Your task to perform on an android device: Search for the best rated headphones on amazon.com Image 0: 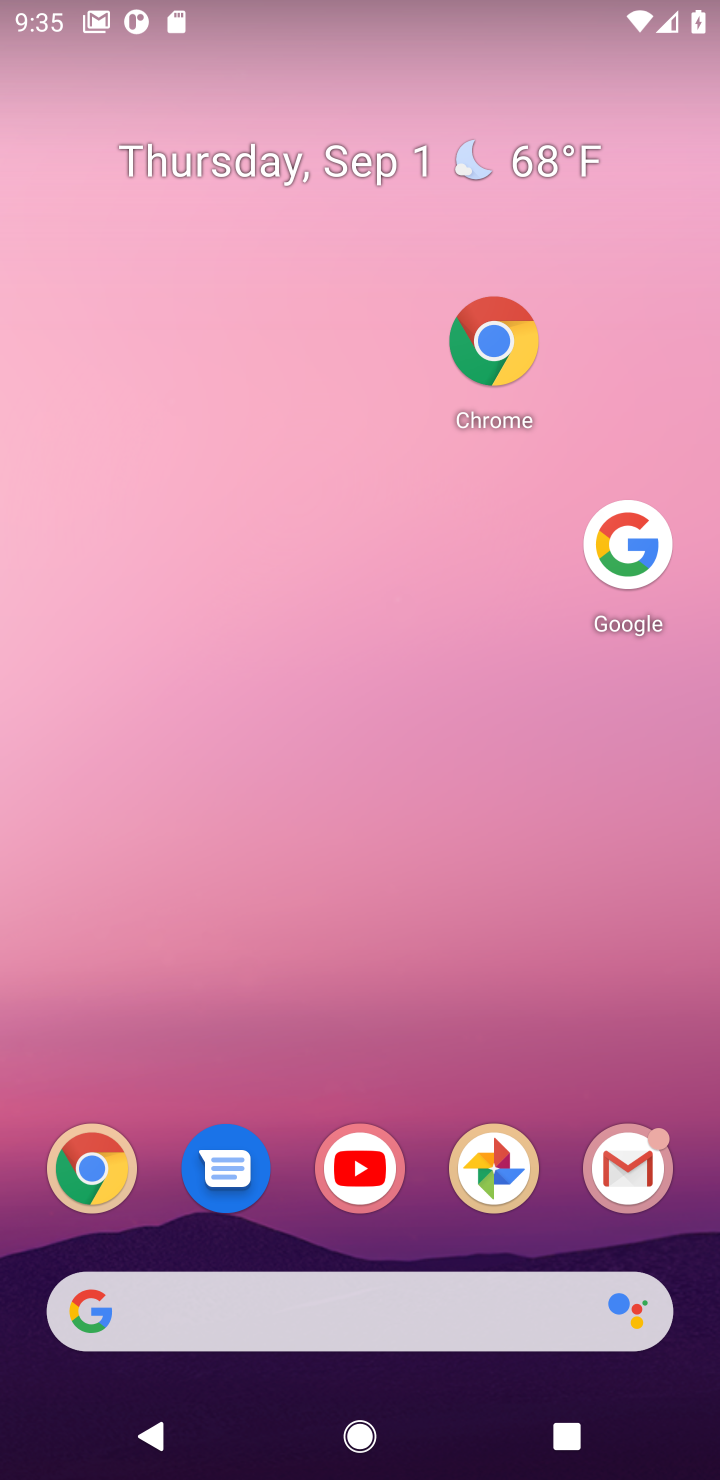
Step 0: drag from (256, 1275) to (266, 345)
Your task to perform on an android device: Search for the best rated headphones on amazon.com Image 1: 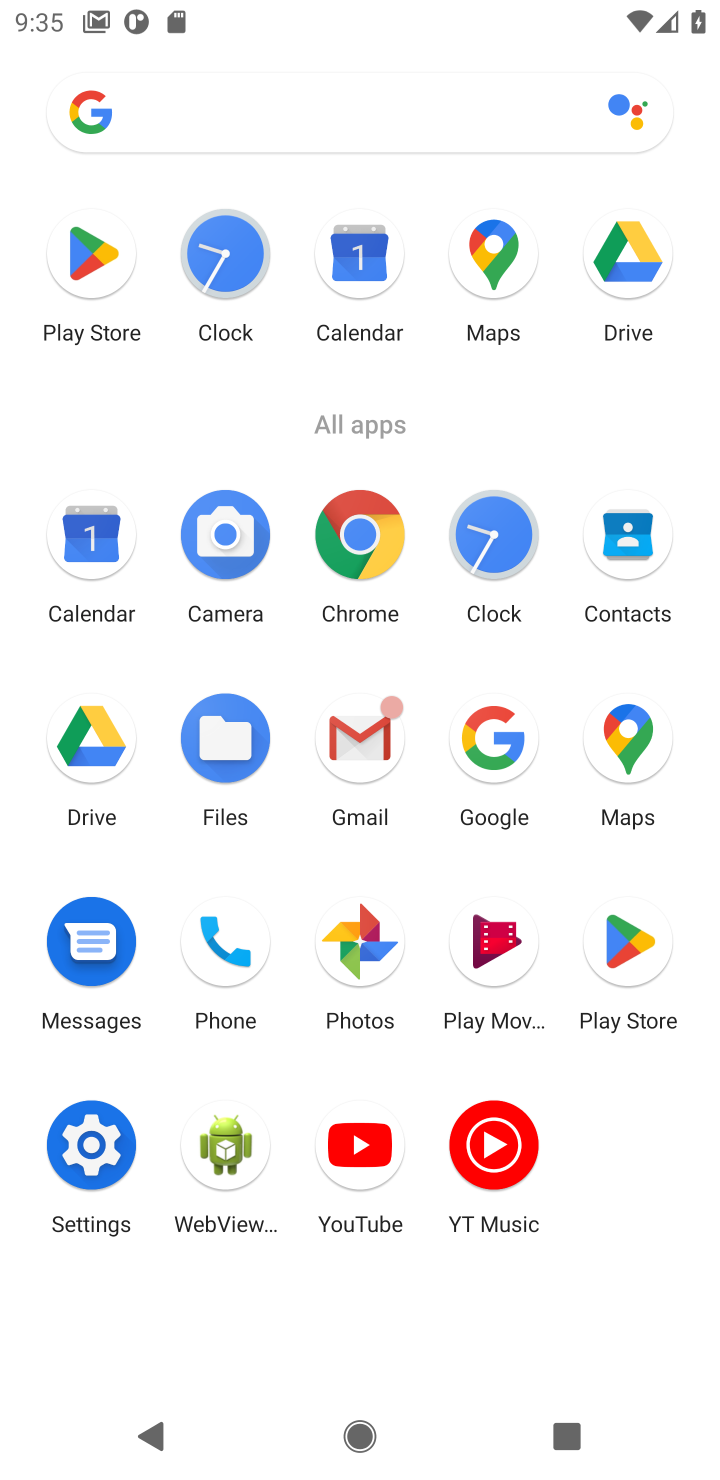
Step 1: click (491, 719)
Your task to perform on an android device: Search for the best rated headphones on amazon.com Image 2: 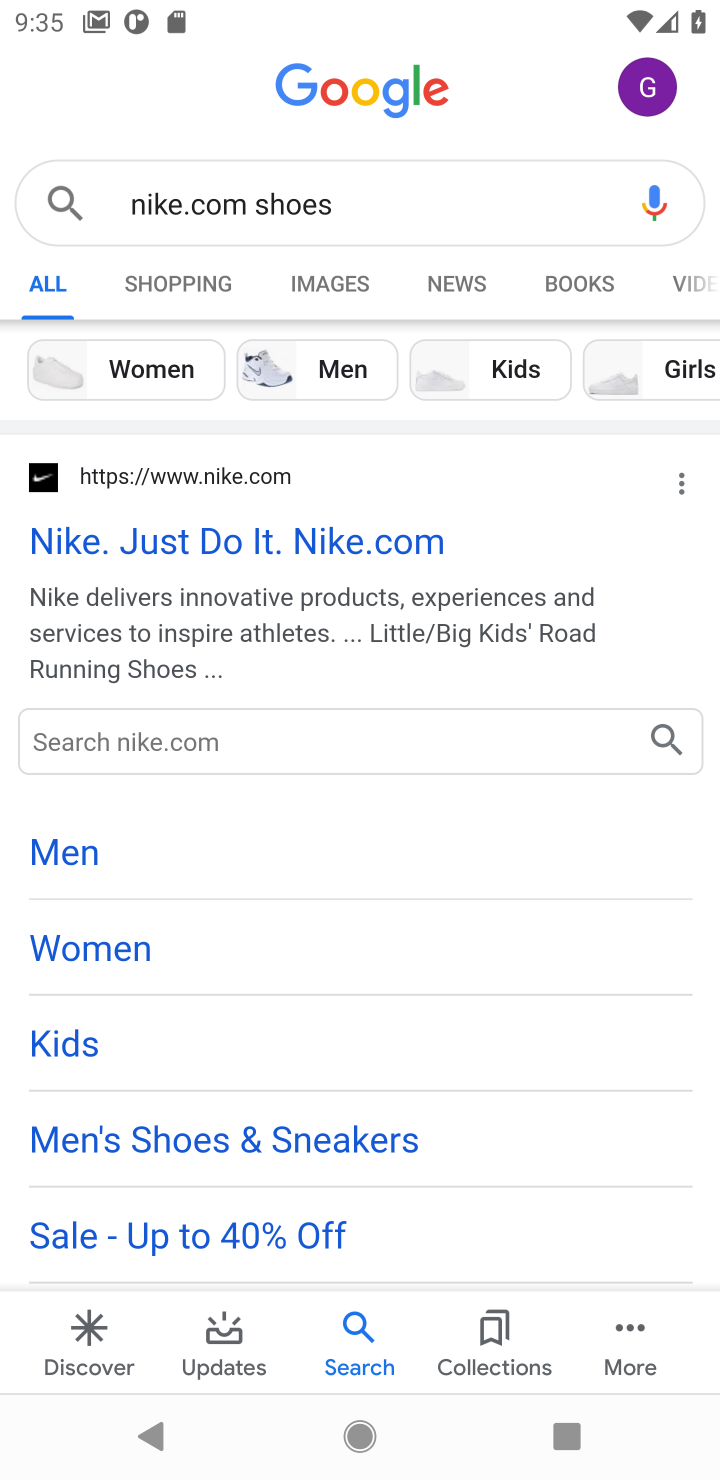
Step 2: click (463, 187)
Your task to perform on an android device: Search for the best rated headphones on amazon.com Image 3: 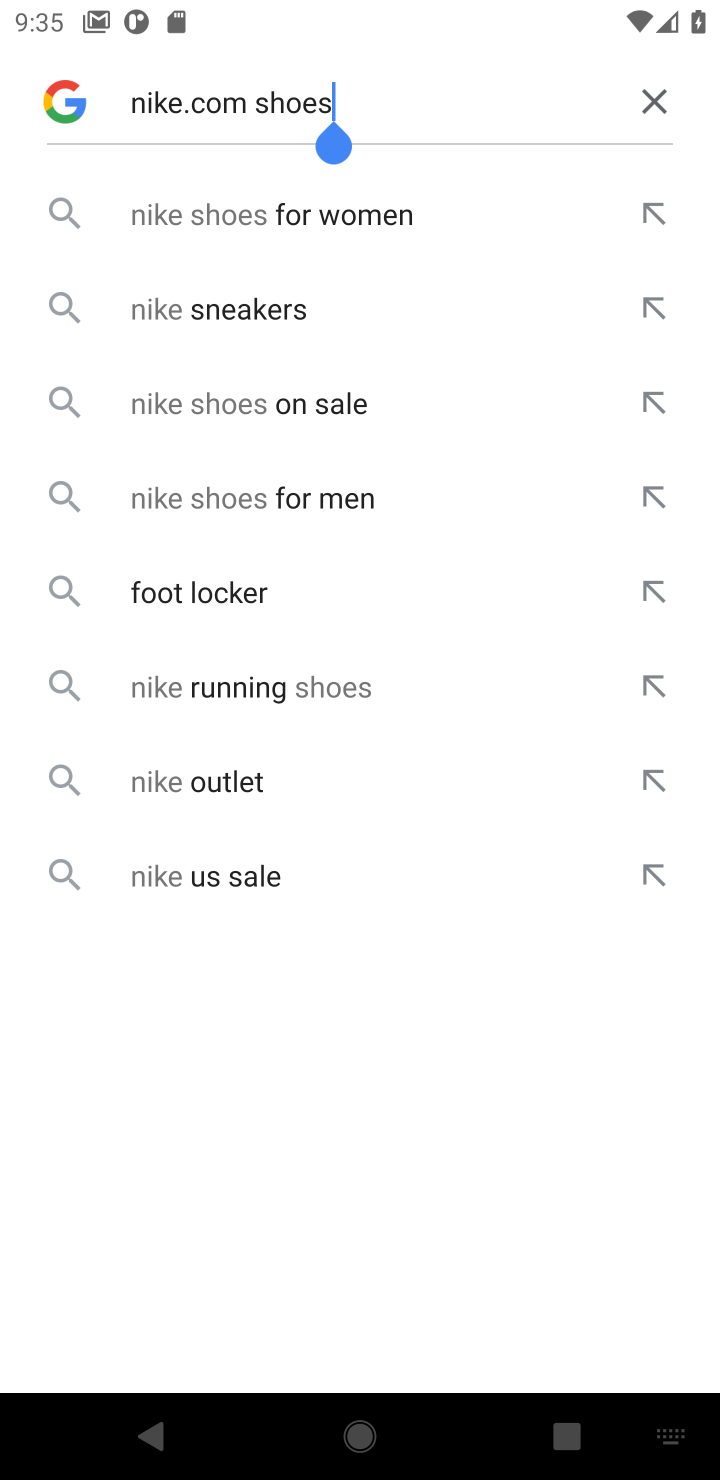
Step 3: click (656, 100)
Your task to perform on an android device: Search for the best rated headphones on amazon.com Image 4: 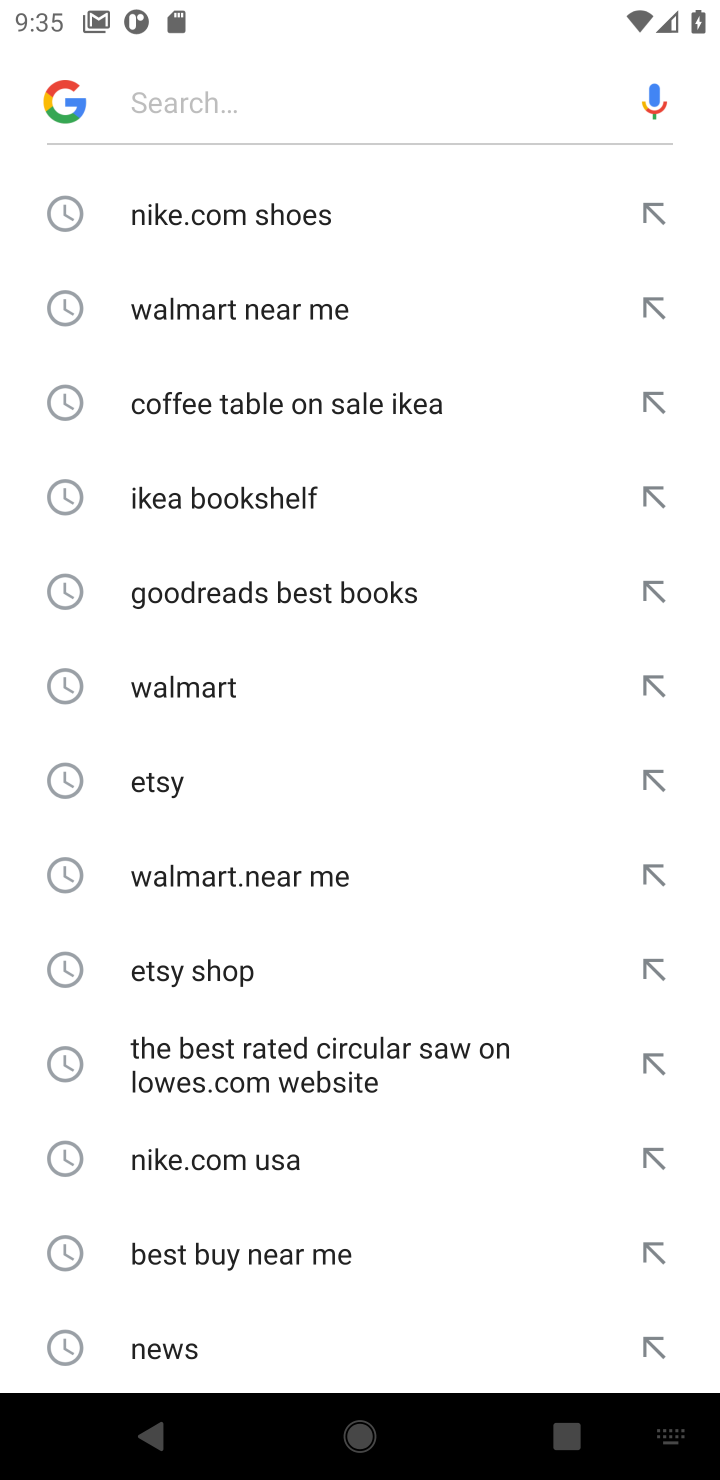
Step 4: click (299, 95)
Your task to perform on an android device: Search for the best rated headphones on amazon.com Image 5: 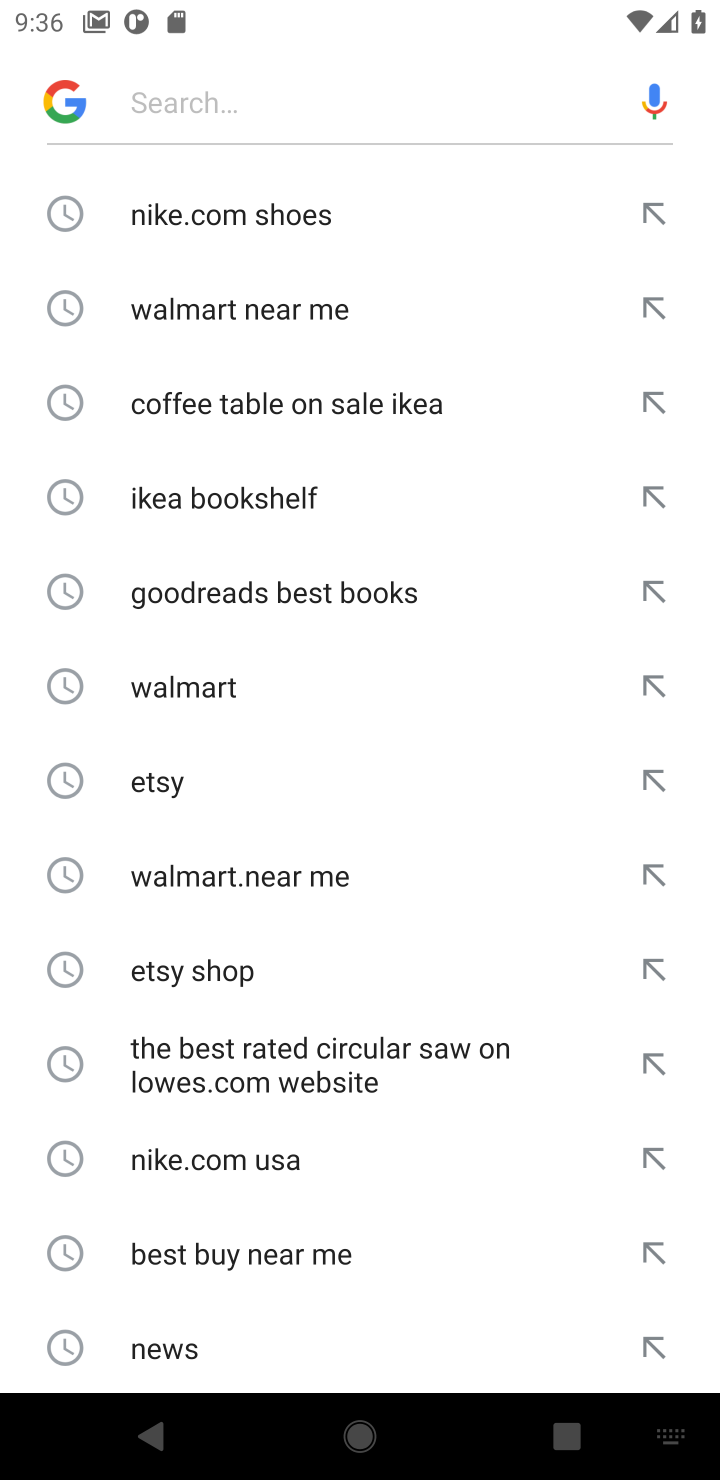
Step 5: type " amazon.com "
Your task to perform on an android device: Search for the best rated headphones on amazon.com Image 6: 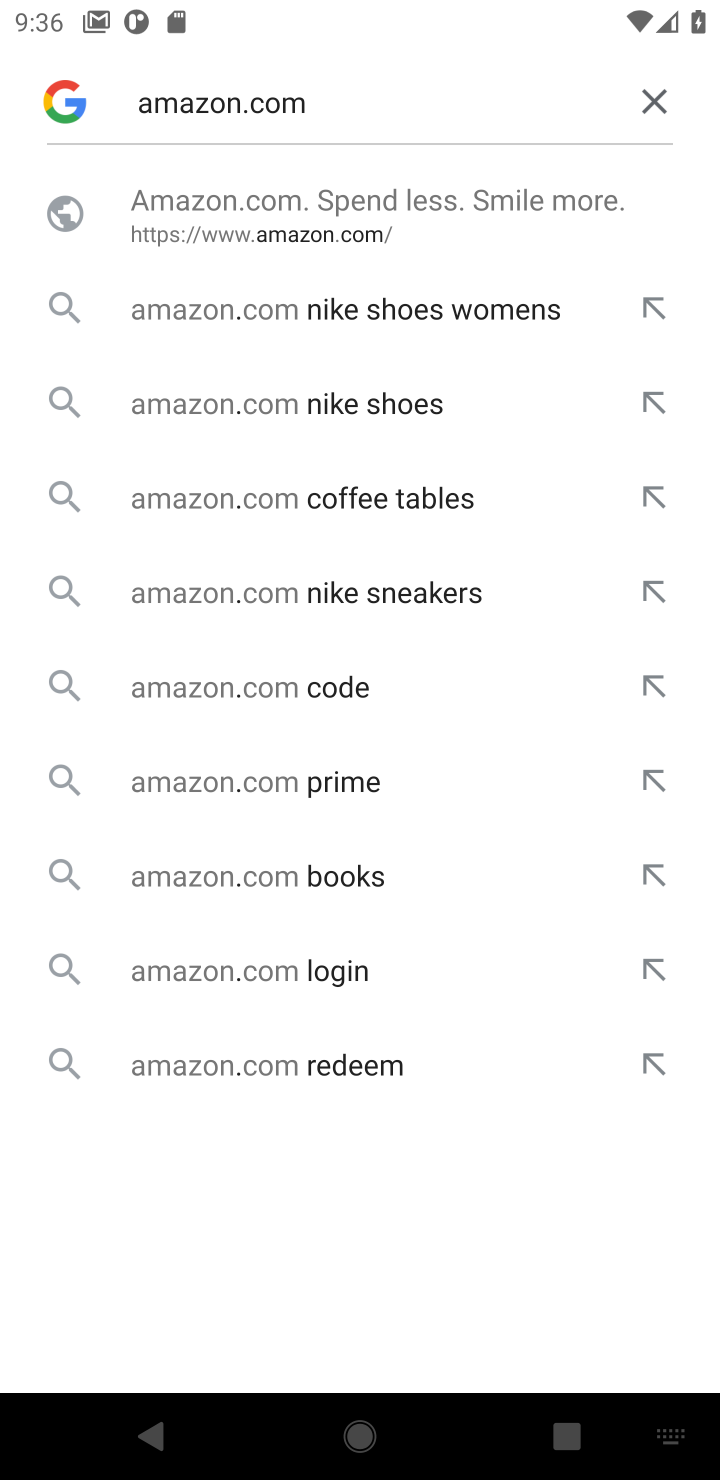
Step 6: click (315, 222)
Your task to perform on an android device: Search for the best rated headphones on amazon.com Image 7: 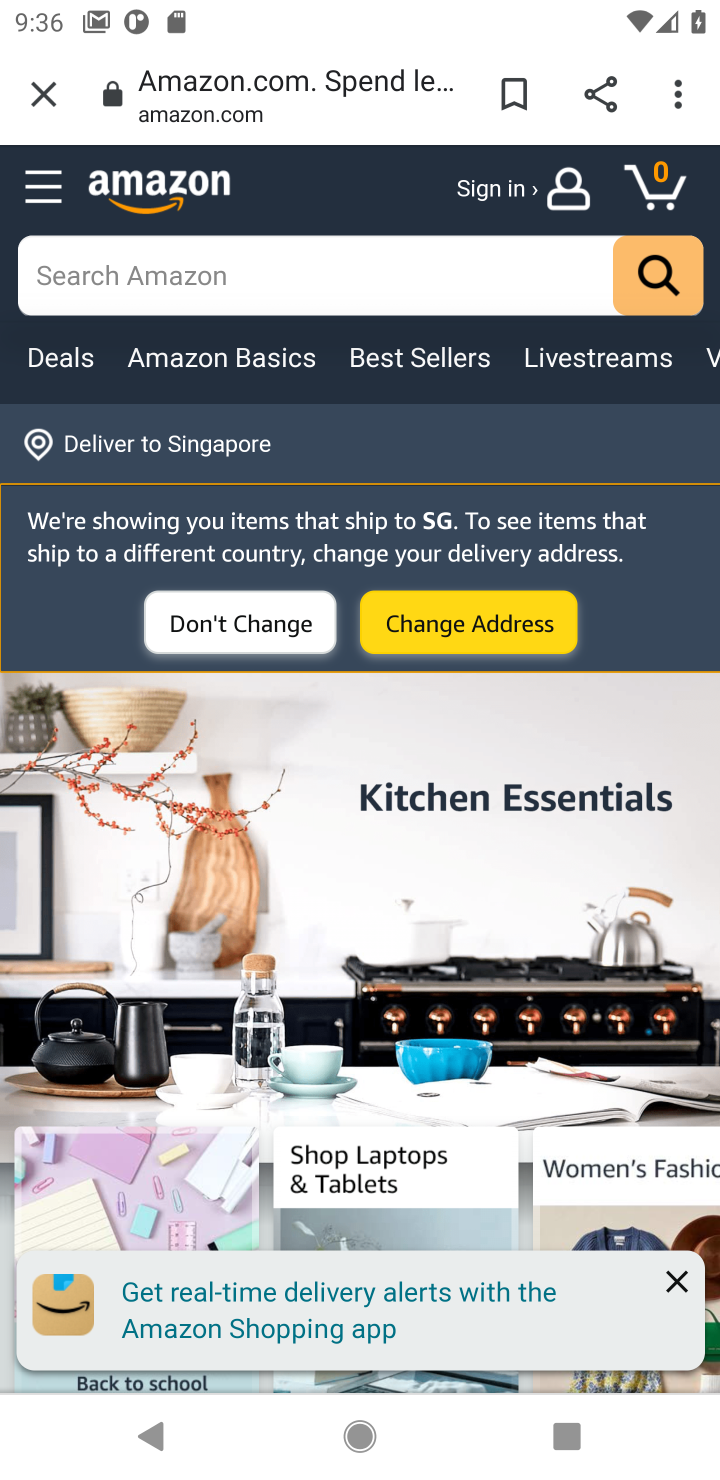
Step 7: click (663, 1276)
Your task to perform on an android device: Search for the best rated headphones on amazon.com Image 8: 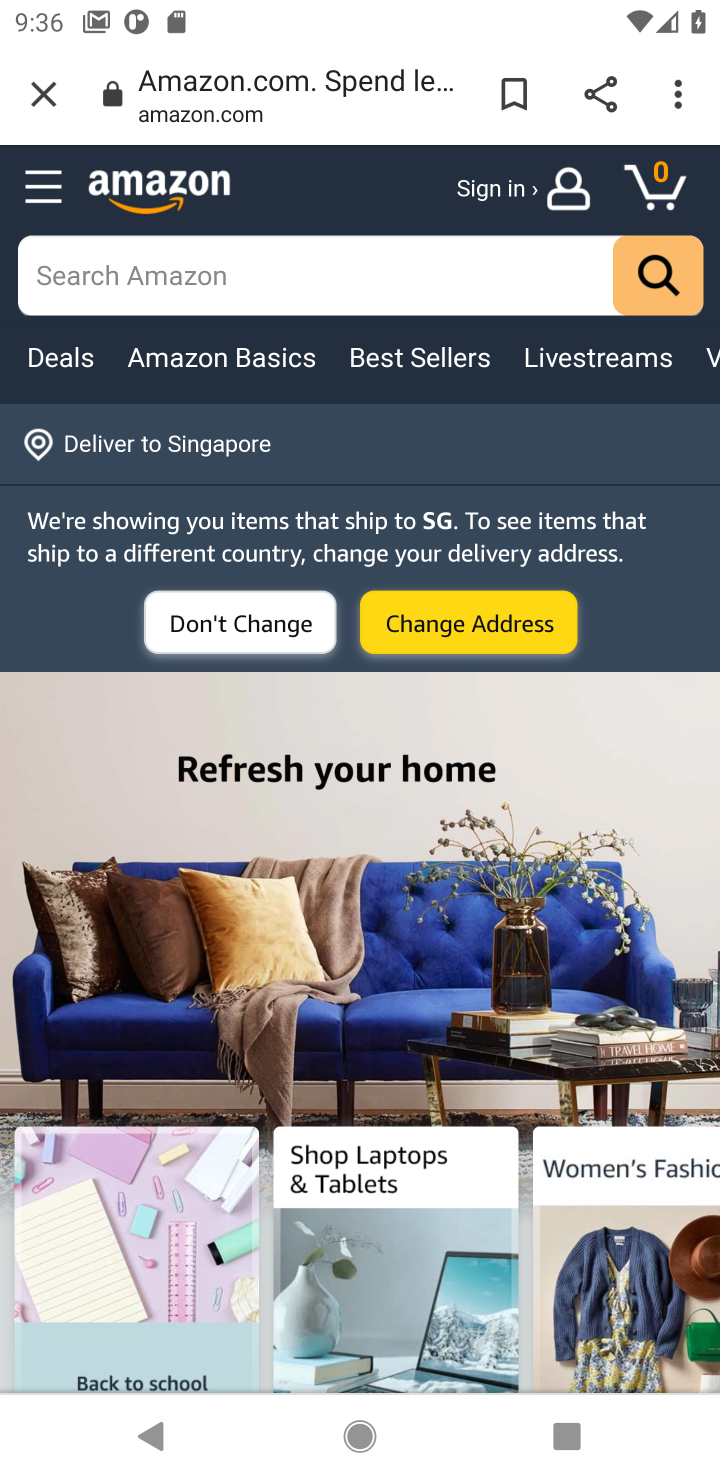
Step 8: click (416, 253)
Your task to perform on an android device: Search for the best rated headphones on amazon.com Image 9: 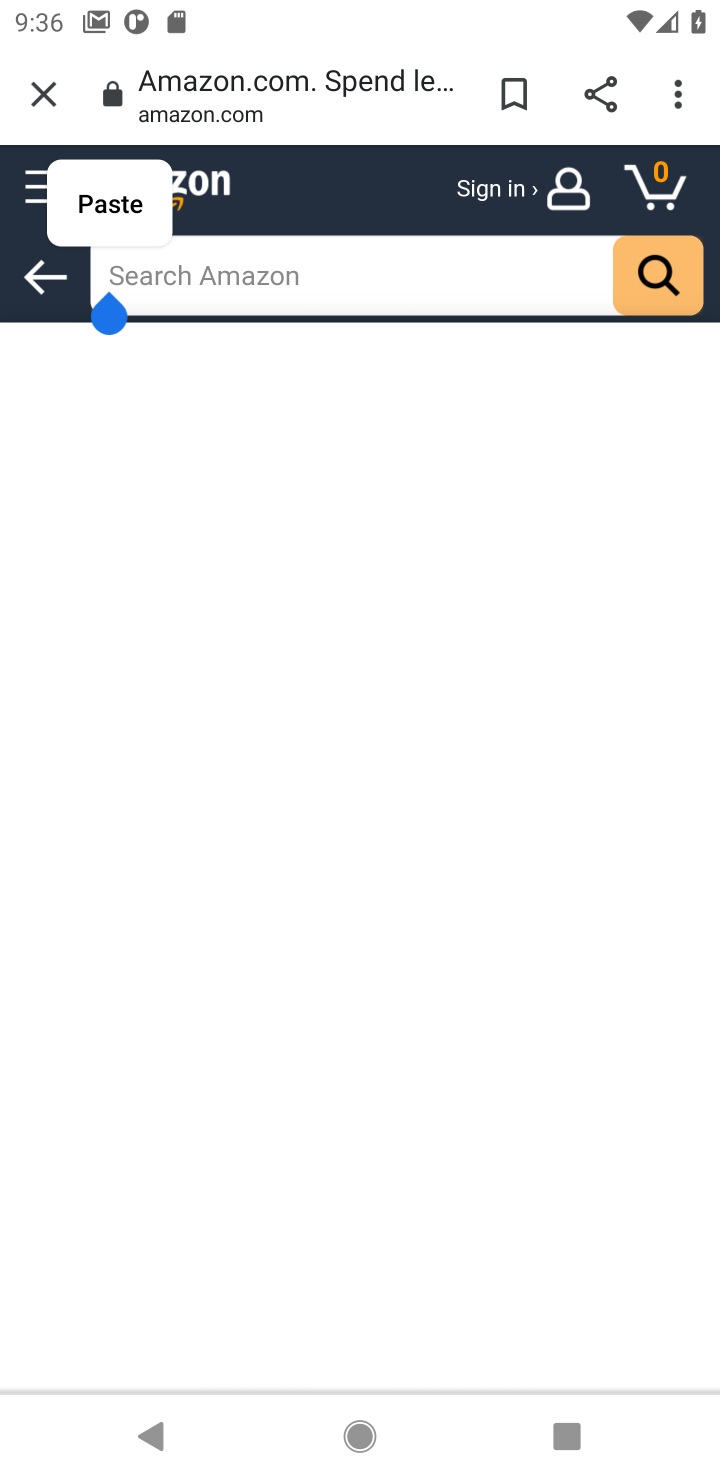
Step 9: type " headphones "
Your task to perform on an android device: Search for the best rated headphones on amazon.com Image 10: 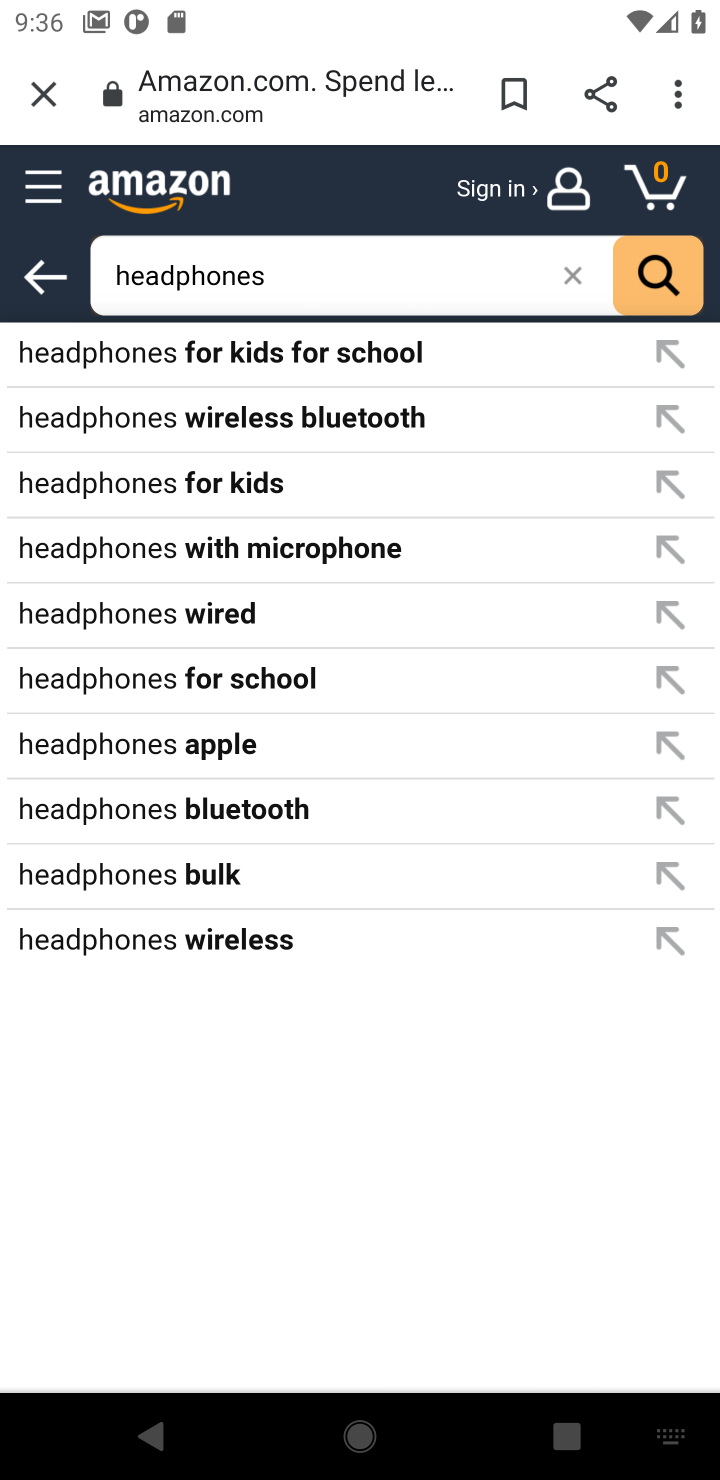
Step 10: click (143, 929)
Your task to perform on an android device: Search for the best rated headphones on amazon.com Image 11: 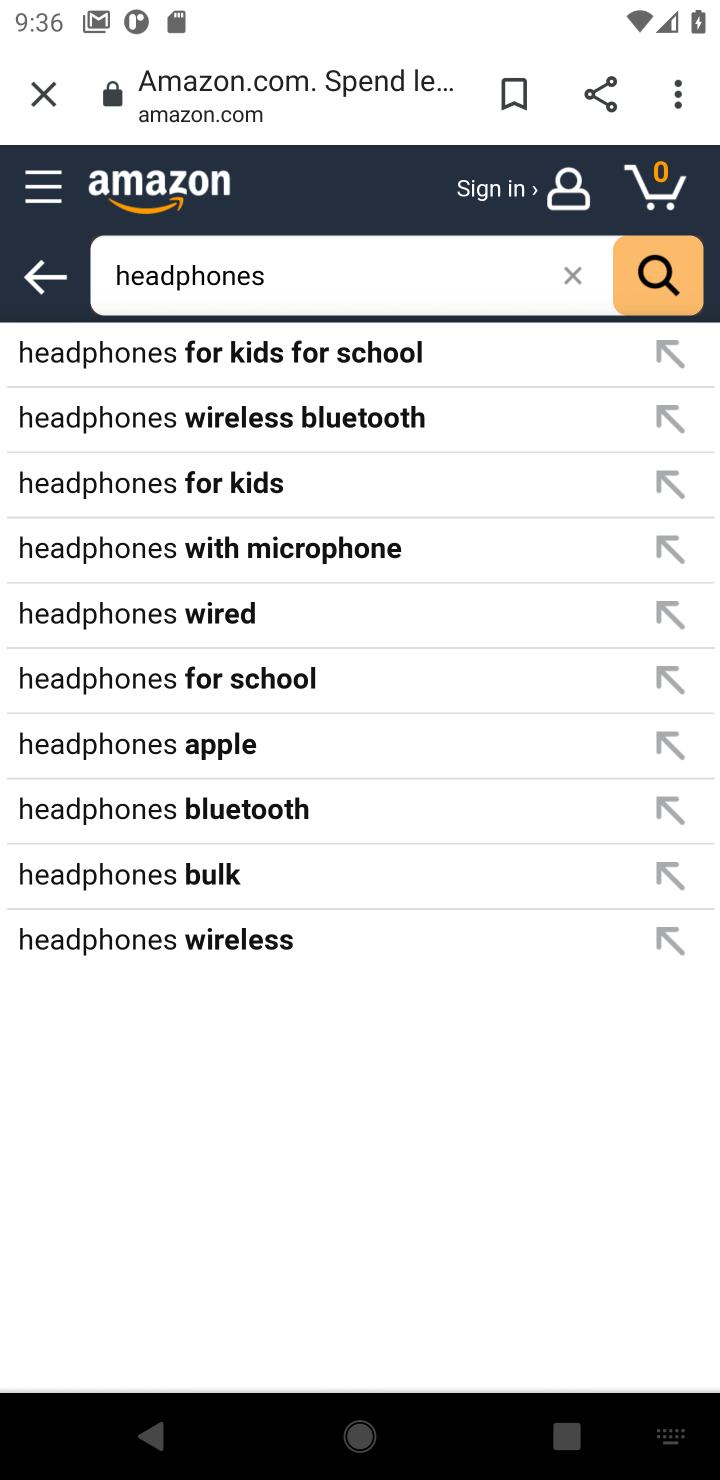
Step 11: click (201, 948)
Your task to perform on an android device: Search for the best rated headphones on amazon.com Image 12: 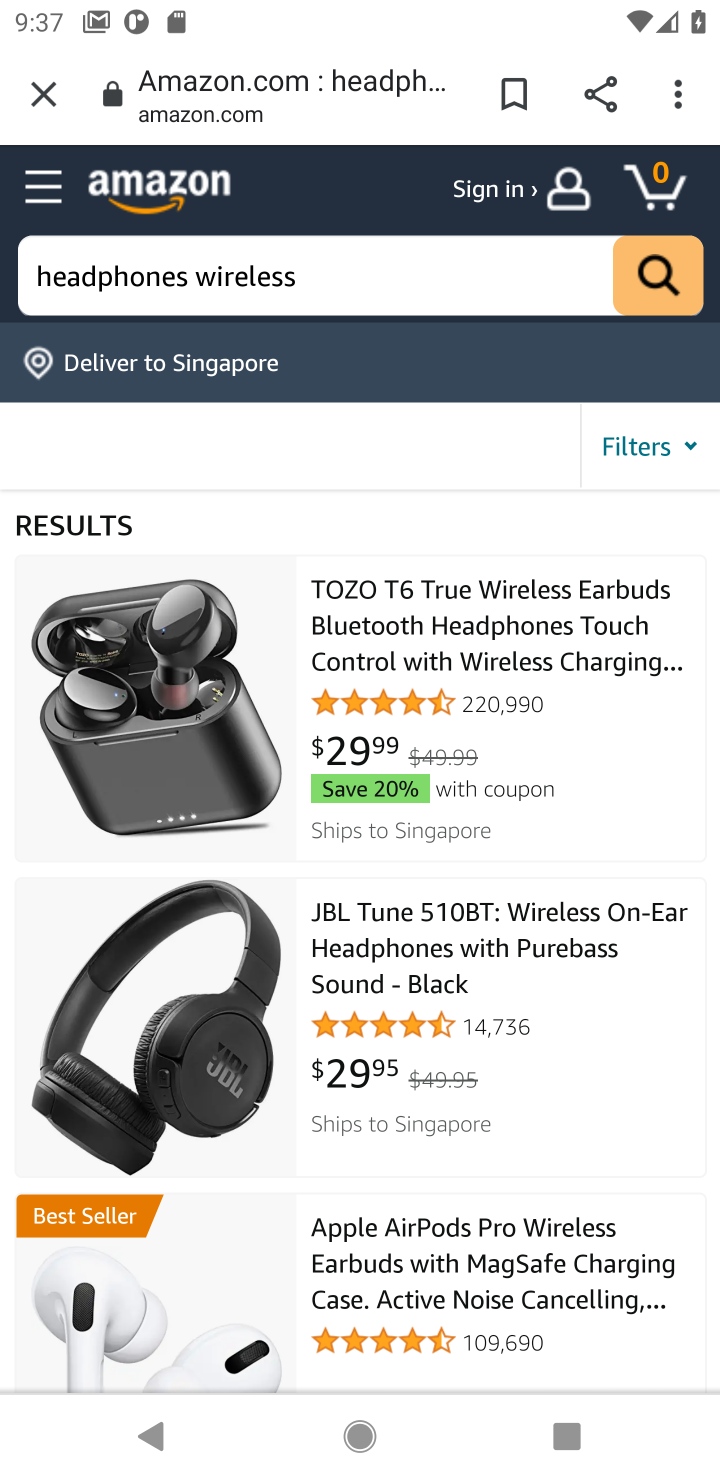
Step 12: click (156, 948)
Your task to perform on an android device: Search for the best rated headphones on amazon.com Image 13: 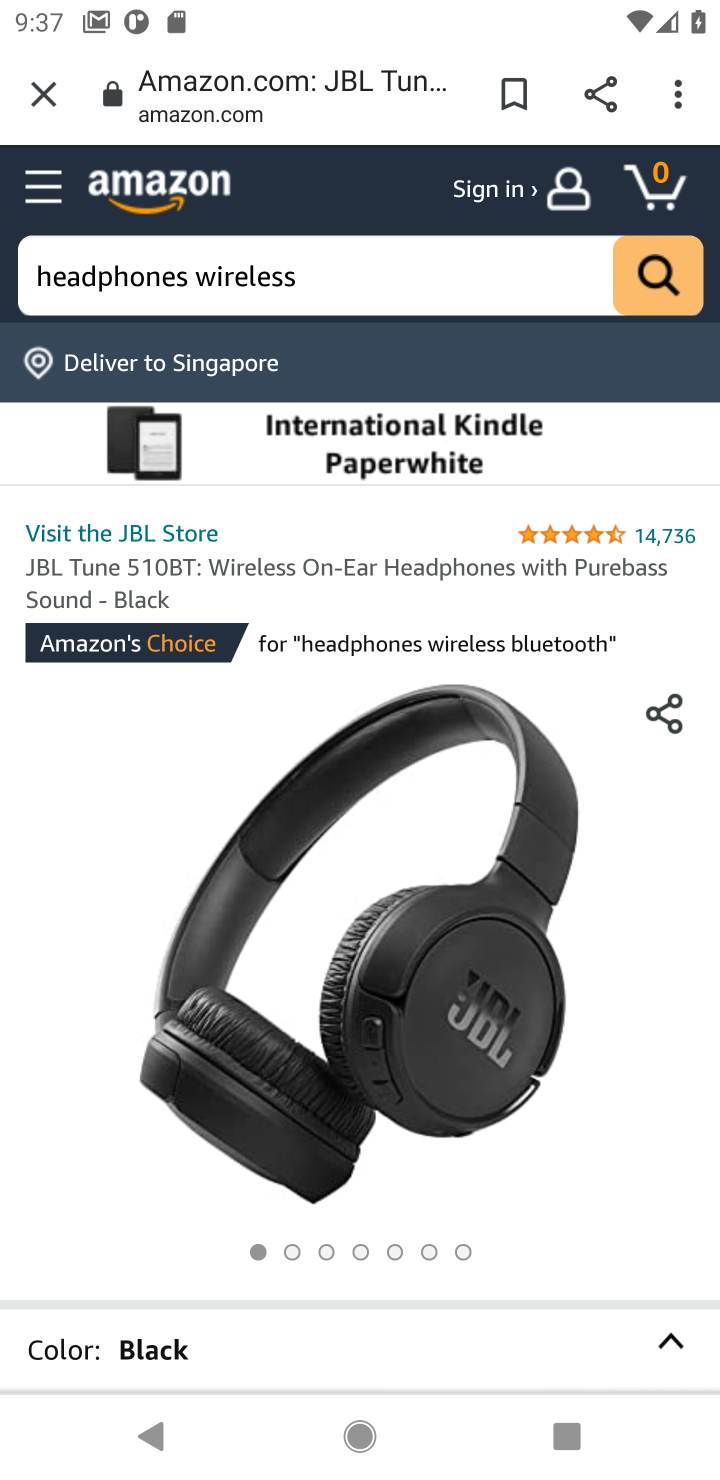
Step 13: task complete